Your task to perform on an android device: turn on wifi Image 0: 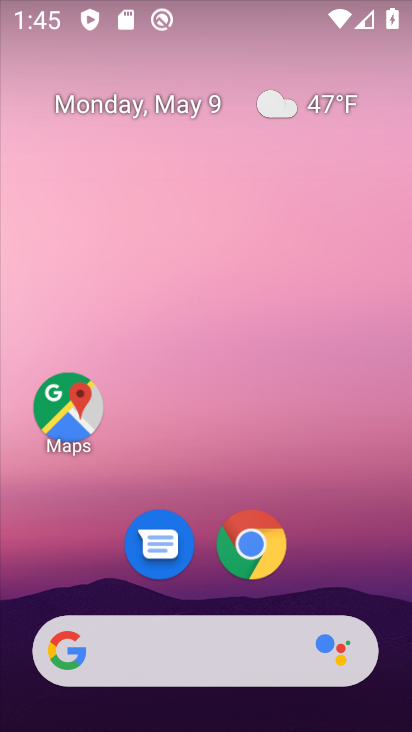
Step 0: click (270, 105)
Your task to perform on an android device: turn on wifi Image 1: 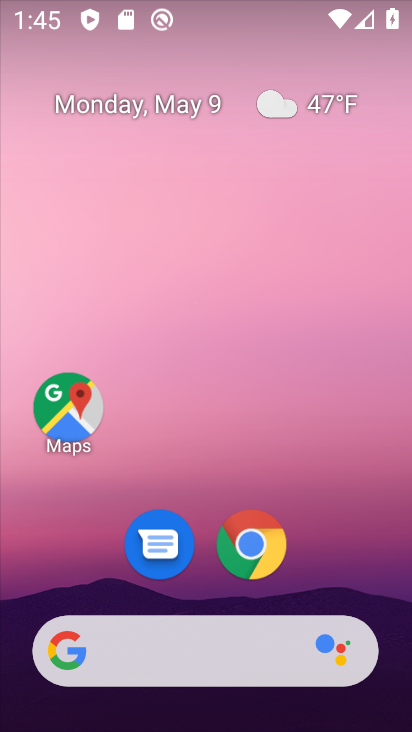
Step 1: drag from (215, 611) to (322, 194)
Your task to perform on an android device: turn on wifi Image 2: 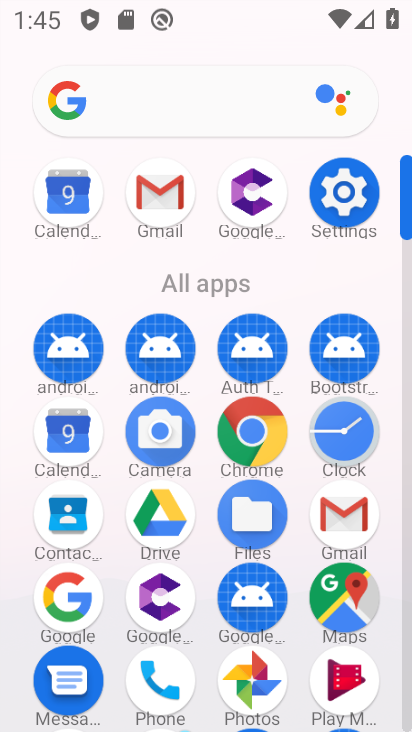
Step 2: click (357, 183)
Your task to perform on an android device: turn on wifi Image 3: 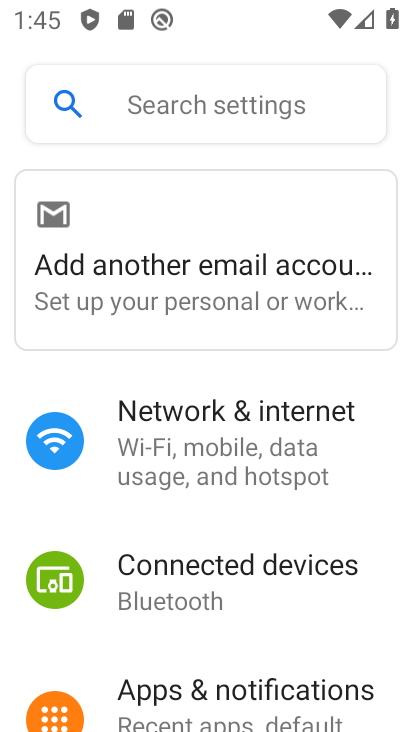
Step 3: click (276, 450)
Your task to perform on an android device: turn on wifi Image 4: 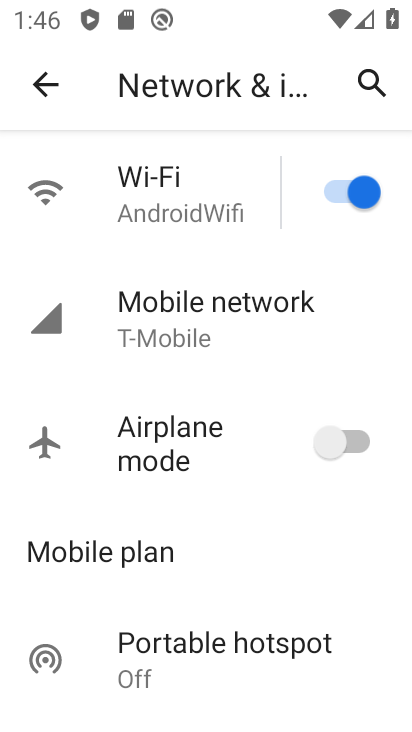
Step 4: task complete